Your task to perform on an android device: allow cookies in the chrome app Image 0: 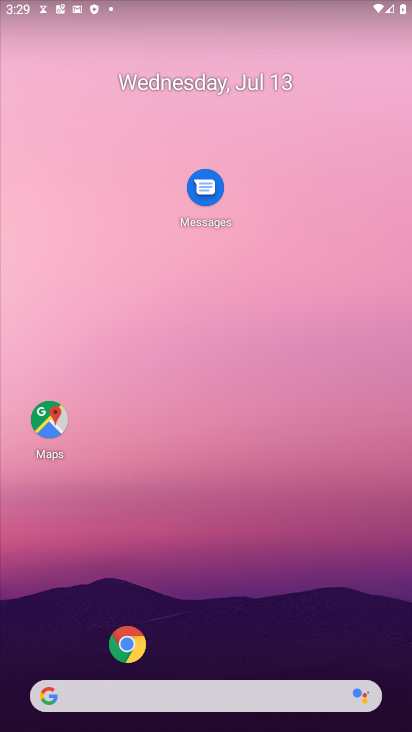
Step 0: click (123, 653)
Your task to perform on an android device: allow cookies in the chrome app Image 1: 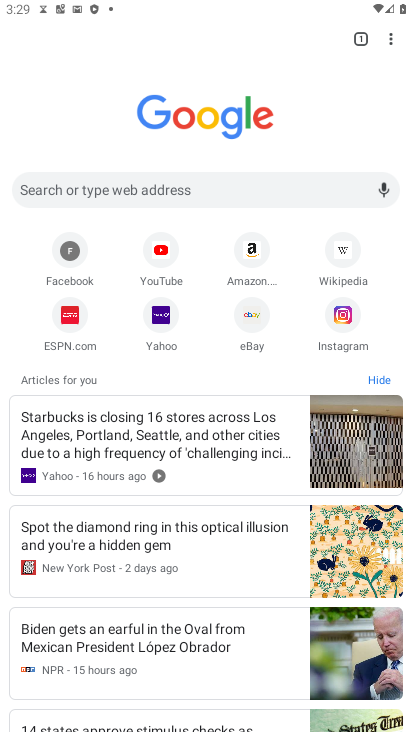
Step 1: click (393, 39)
Your task to perform on an android device: allow cookies in the chrome app Image 2: 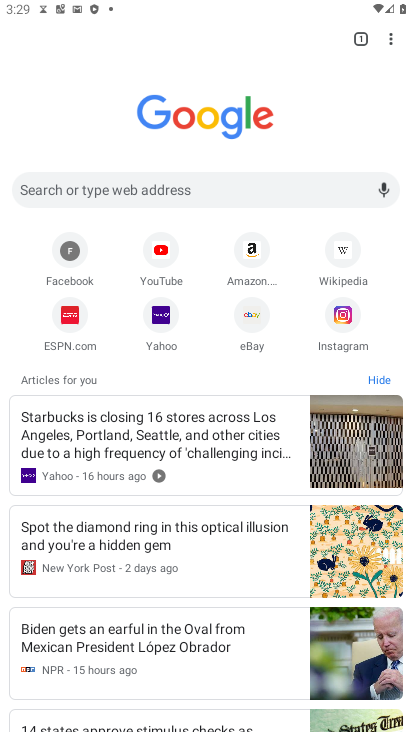
Step 2: click (392, 28)
Your task to perform on an android device: allow cookies in the chrome app Image 3: 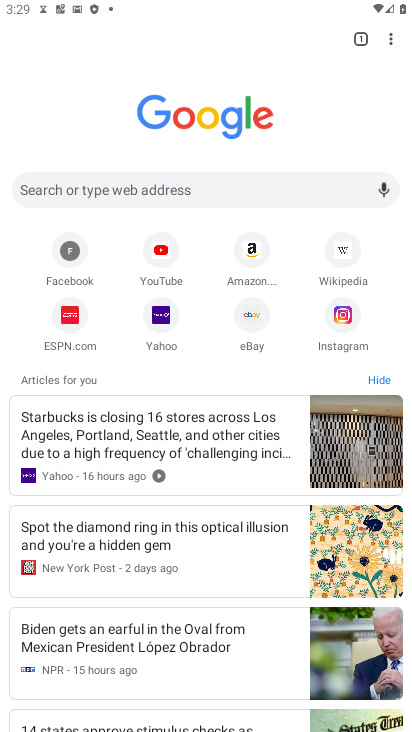
Step 3: task complete